Your task to perform on an android device: Go to Yahoo.com Image 0: 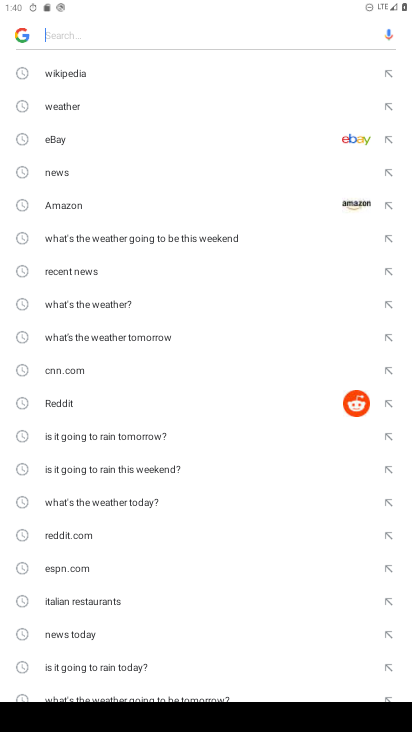
Step 0: type "Yahoo.com"
Your task to perform on an android device: Go to Yahoo.com Image 1: 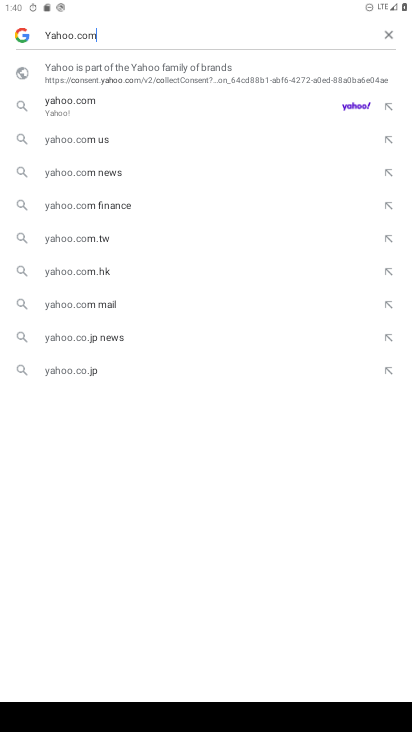
Step 1: type ""
Your task to perform on an android device: Go to Yahoo.com Image 2: 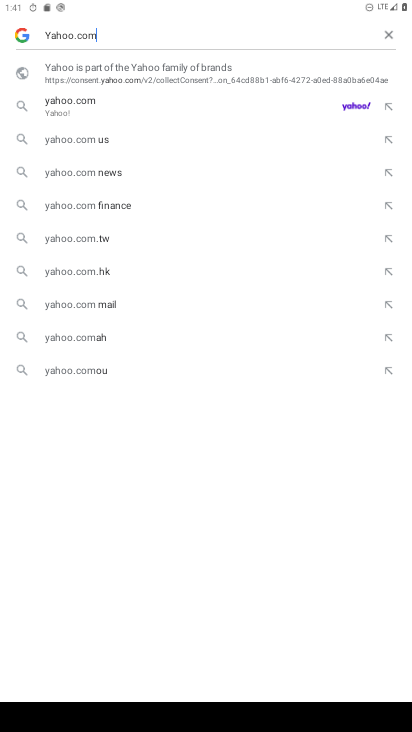
Step 2: click (67, 109)
Your task to perform on an android device: Go to Yahoo.com Image 3: 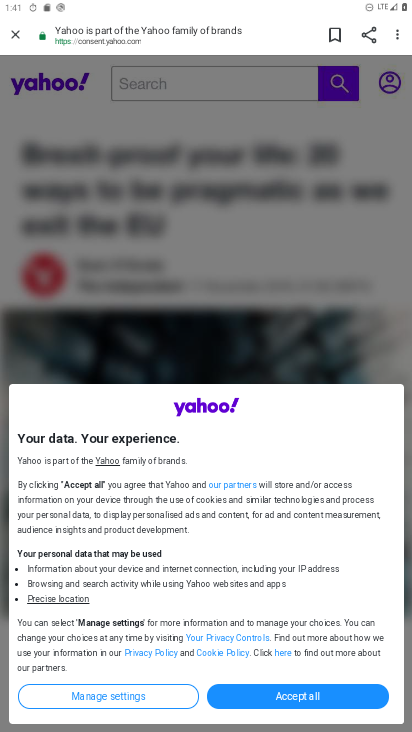
Step 3: task complete